Your task to perform on an android device: open chrome and create a bookmark for the current page Image 0: 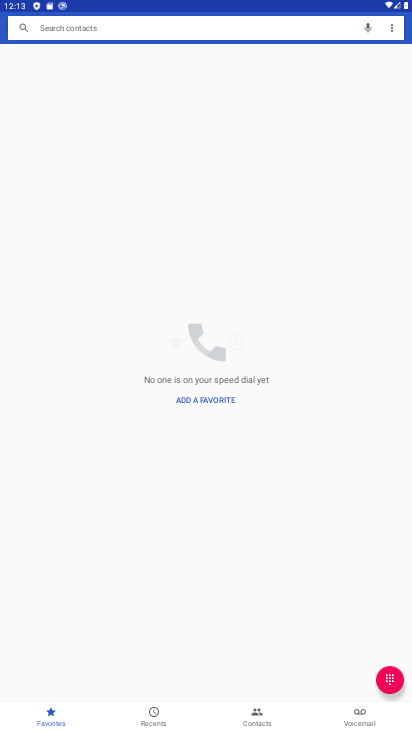
Step 0: press home button
Your task to perform on an android device: open chrome and create a bookmark for the current page Image 1: 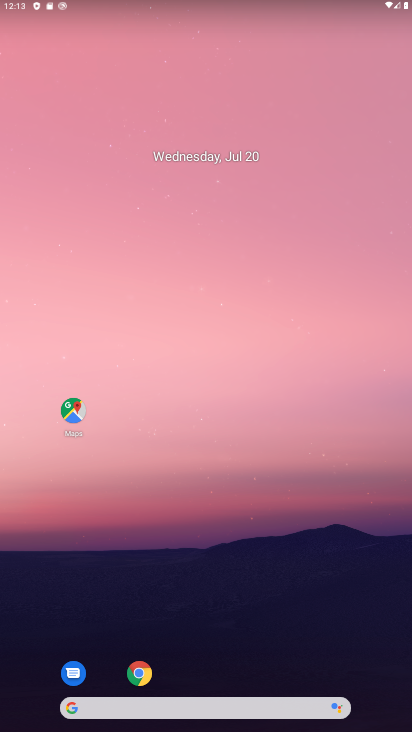
Step 1: click (146, 673)
Your task to perform on an android device: open chrome and create a bookmark for the current page Image 2: 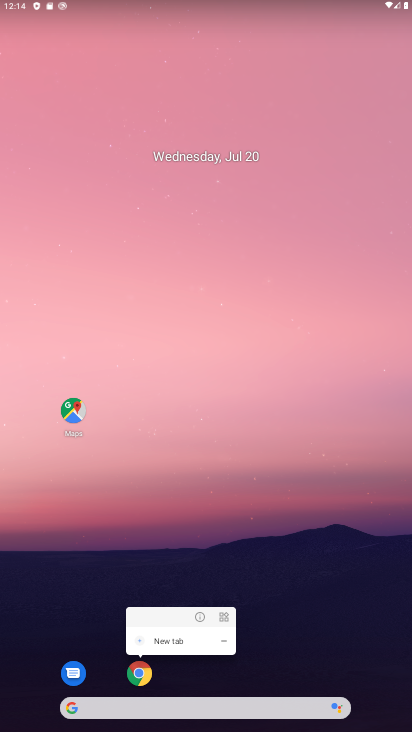
Step 2: click (140, 675)
Your task to perform on an android device: open chrome and create a bookmark for the current page Image 3: 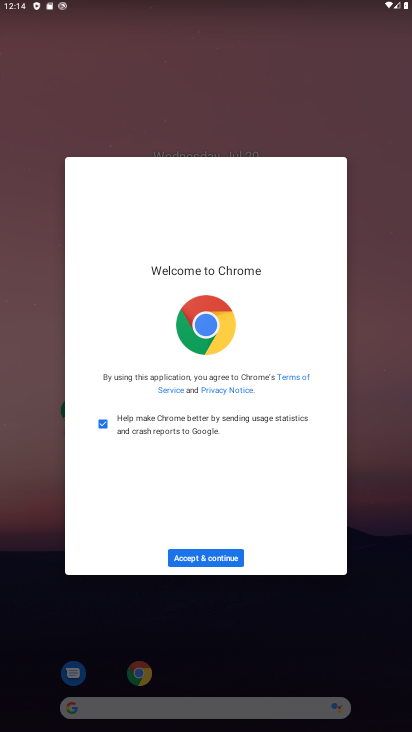
Step 3: click (225, 558)
Your task to perform on an android device: open chrome and create a bookmark for the current page Image 4: 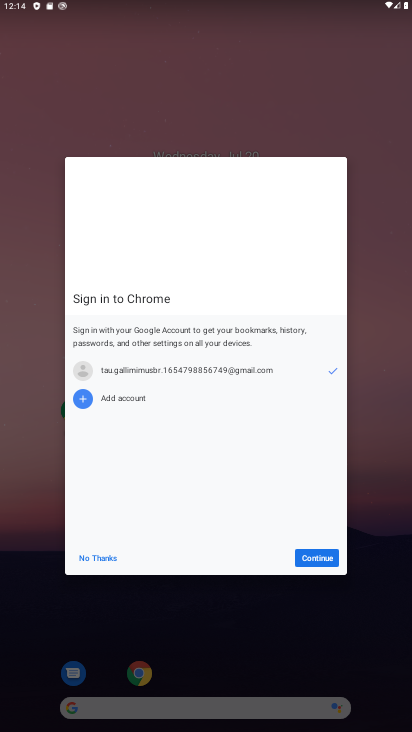
Step 4: click (311, 556)
Your task to perform on an android device: open chrome and create a bookmark for the current page Image 5: 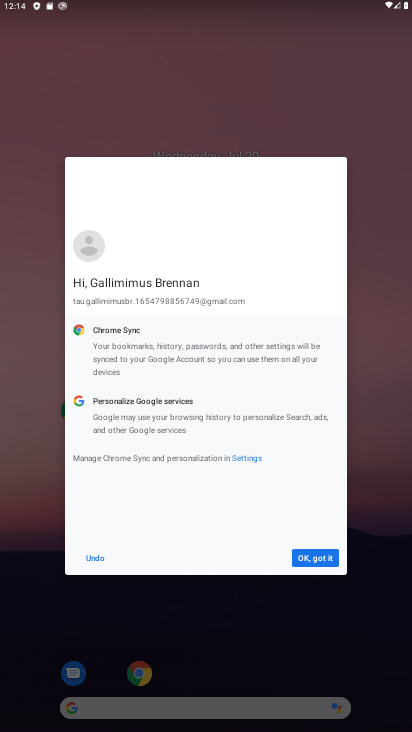
Step 5: click (309, 557)
Your task to perform on an android device: open chrome and create a bookmark for the current page Image 6: 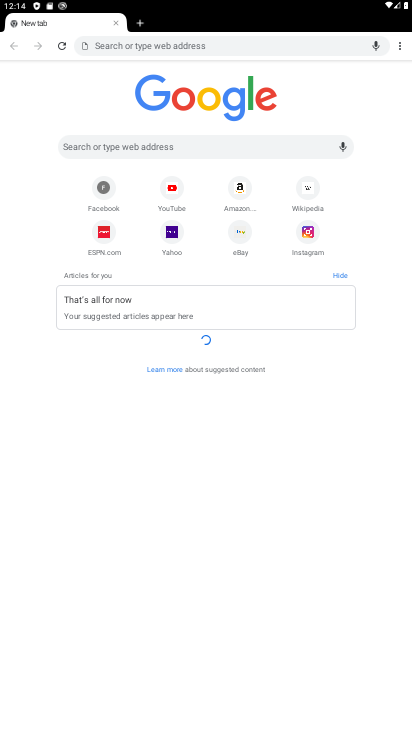
Step 6: click (401, 49)
Your task to perform on an android device: open chrome and create a bookmark for the current page Image 7: 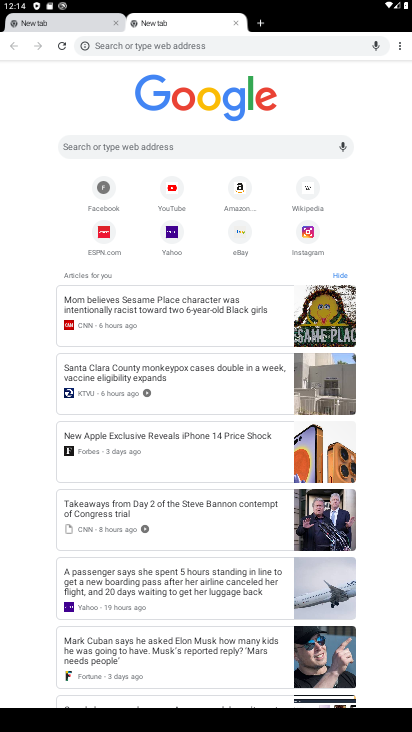
Step 7: click (395, 47)
Your task to perform on an android device: open chrome and create a bookmark for the current page Image 8: 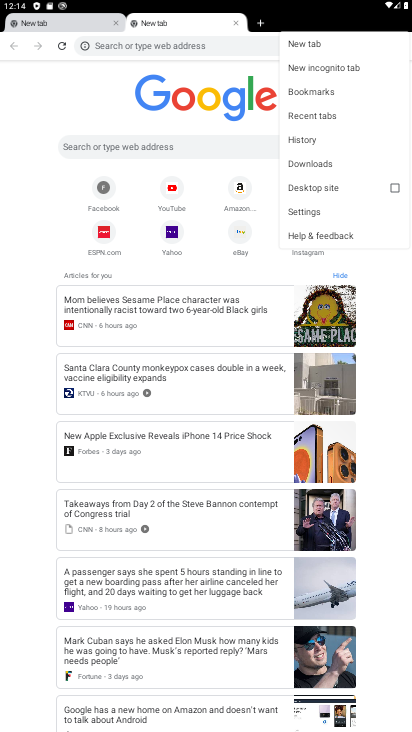
Step 8: click (26, 116)
Your task to perform on an android device: open chrome and create a bookmark for the current page Image 9: 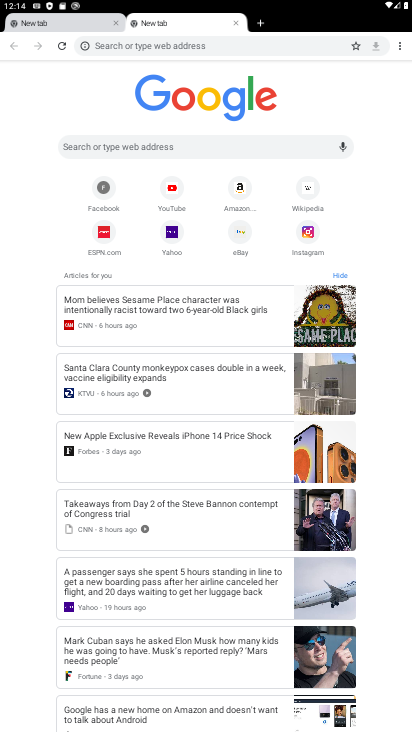
Step 9: click (356, 44)
Your task to perform on an android device: open chrome and create a bookmark for the current page Image 10: 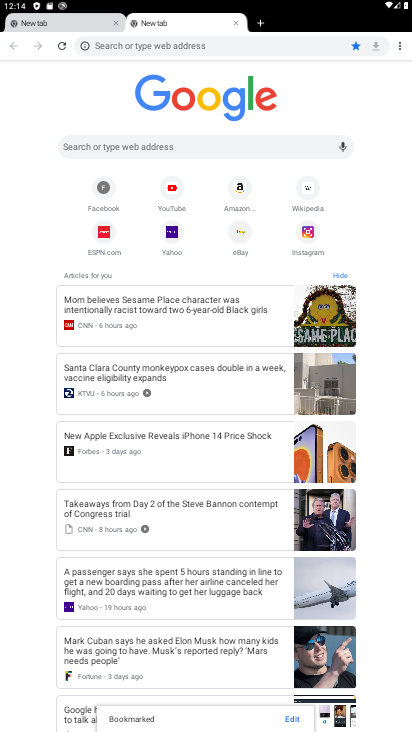
Step 10: task complete